Your task to perform on an android device: Show the shopping cart on walmart. Search for "dell xps" on walmart, select the first entry, and add it to the cart. Image 0: 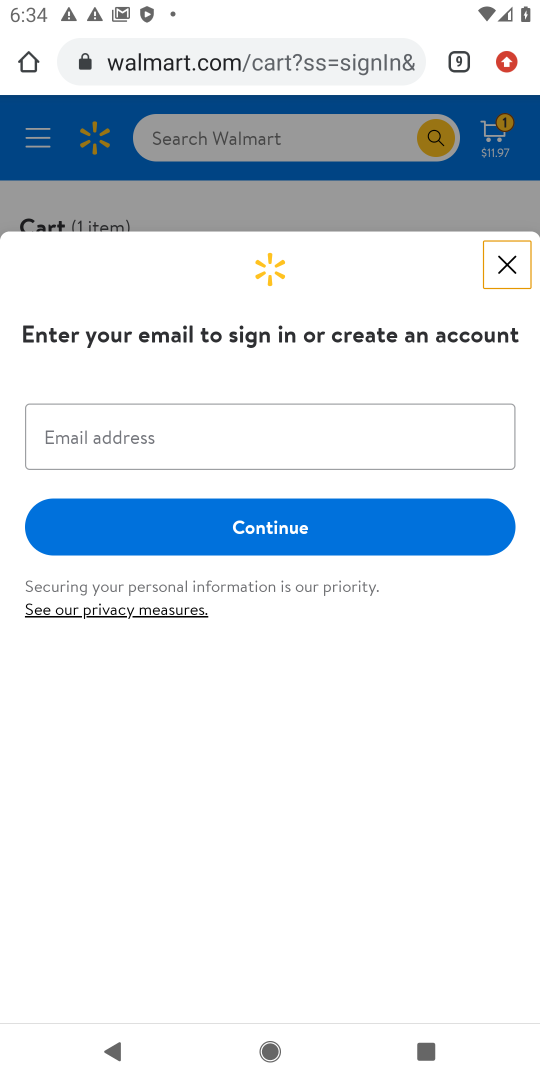
Step 0: press home button
Your task to perform on an android device: Show the shopping cart on walmart. Search for "dell xps" on walmart, select the first entry, and add it to the cart. Image 1: 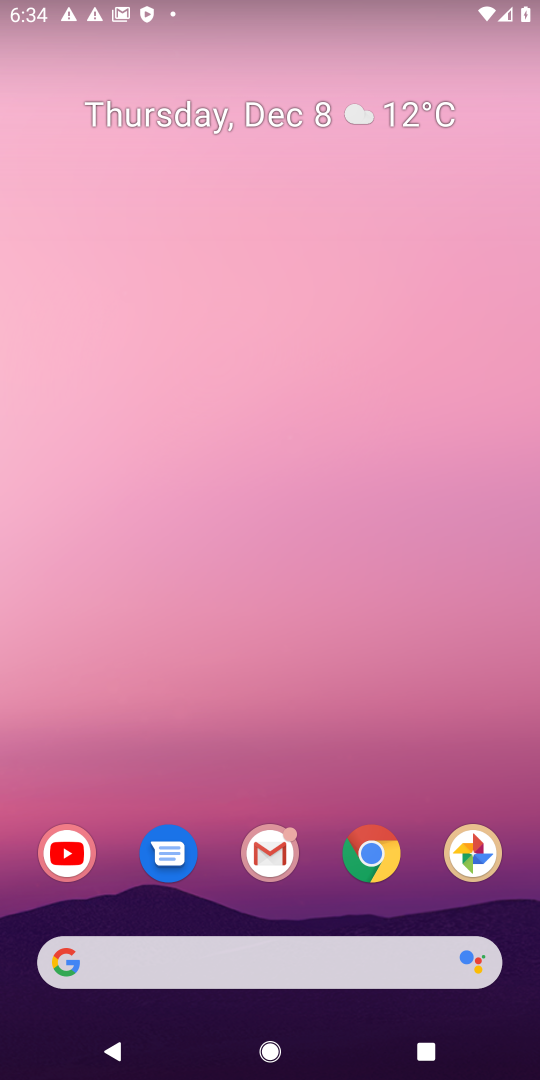
Step 1: click (217, 940)
Your task to perform on an android device: Show the shopping cart on walmart. Search for "dell xps" on walmart, select the first entry, and add it to the cart. Image 2: 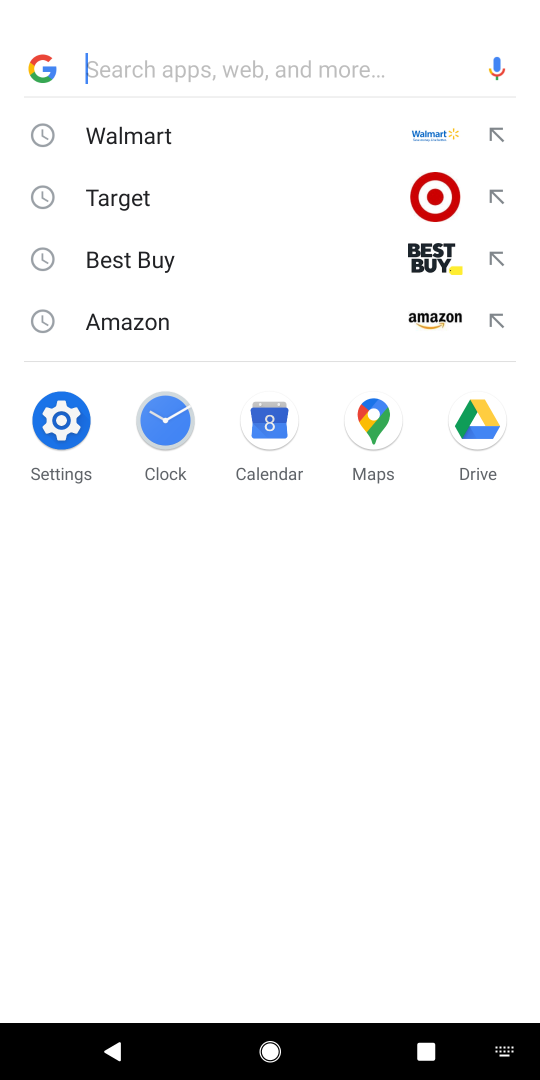
Step 2: click (100, 133)
Your task to perform on an android device: Show the shopping cart on walmart. Search for "dell xps" on walmart, select the first entry, and add it to the cart. Image 3: 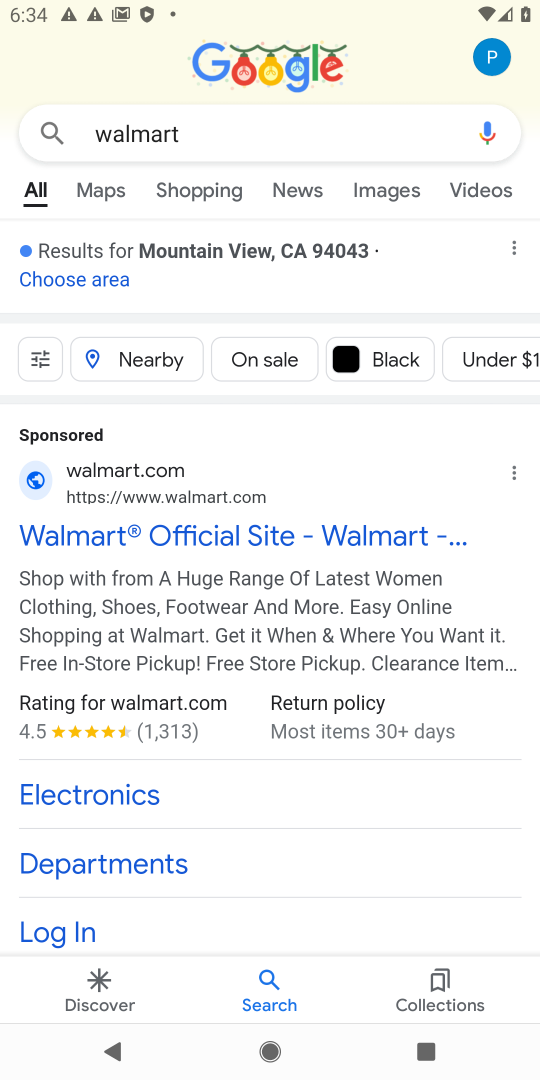
Step 3: click (155, 526)
Your task to perform on an android device: Show the shopping cart on walmart. Search for "dell xps" on walmart, select the first entry, and add it to the cart. Image 4: 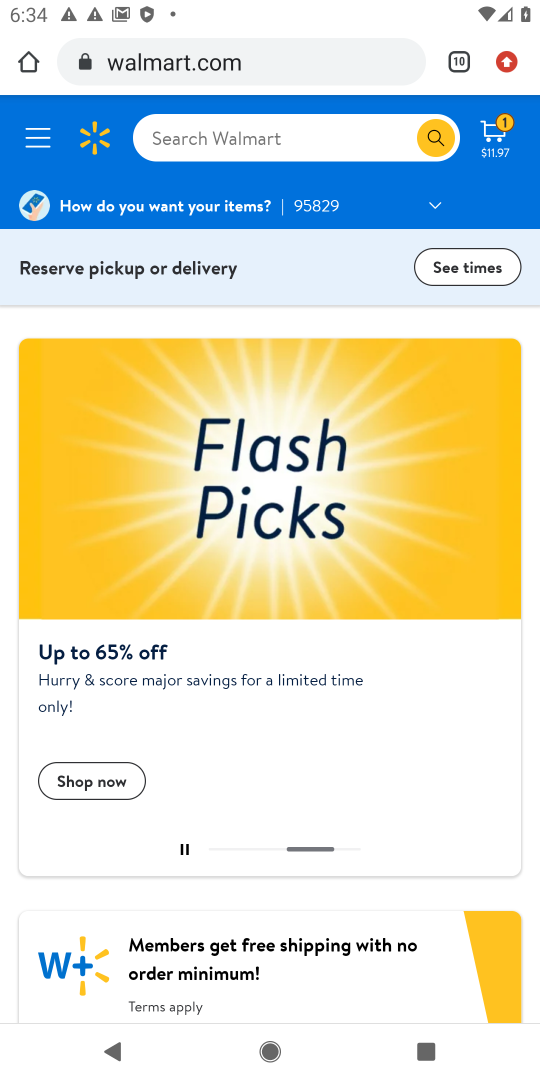
Step 4: click (300, 140)
Your task to perform on an android device: Show the shopping cart on walmart. Search for "dell xps" on walmart, select the first entry, and add it to the cart. Image 5: 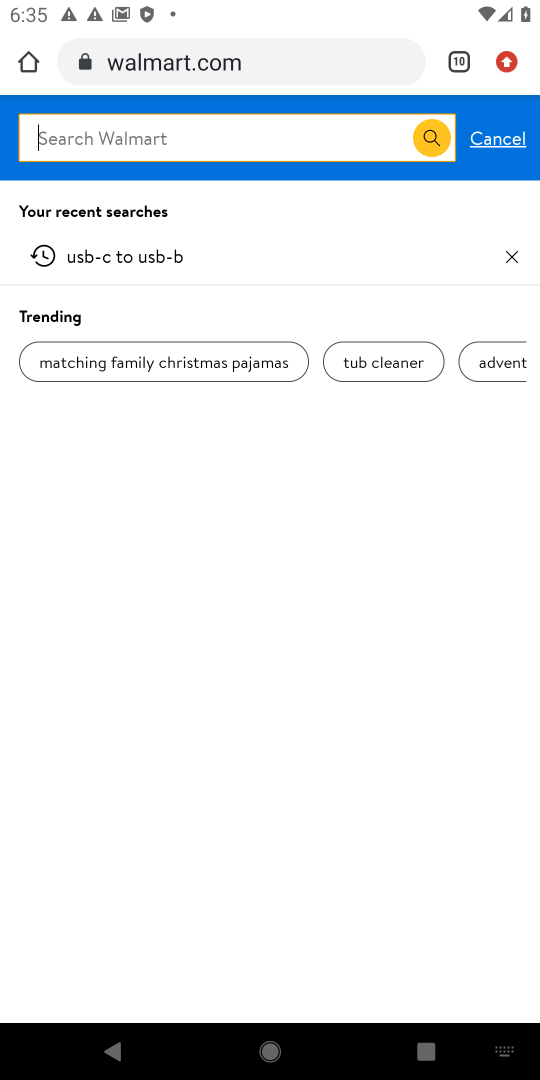
Step 5: type "dell xps"
Your task to perform on an android device: Show the shopping cart on walmart. Search for "dell xps" on walmart, select the first entry, and add it to the cart. Image 6: 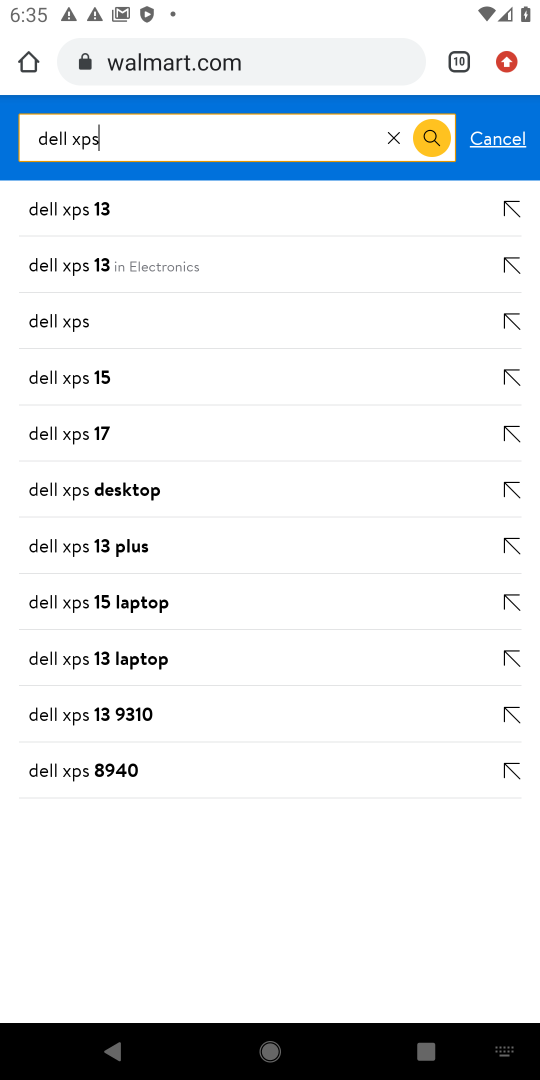
Step 6: click (57, 320)
Your task to perform on an android device: Show the shopping cart on walmart. Search for "dell xps" on walmart, select the first entry, and add it to the cart. Image 7: 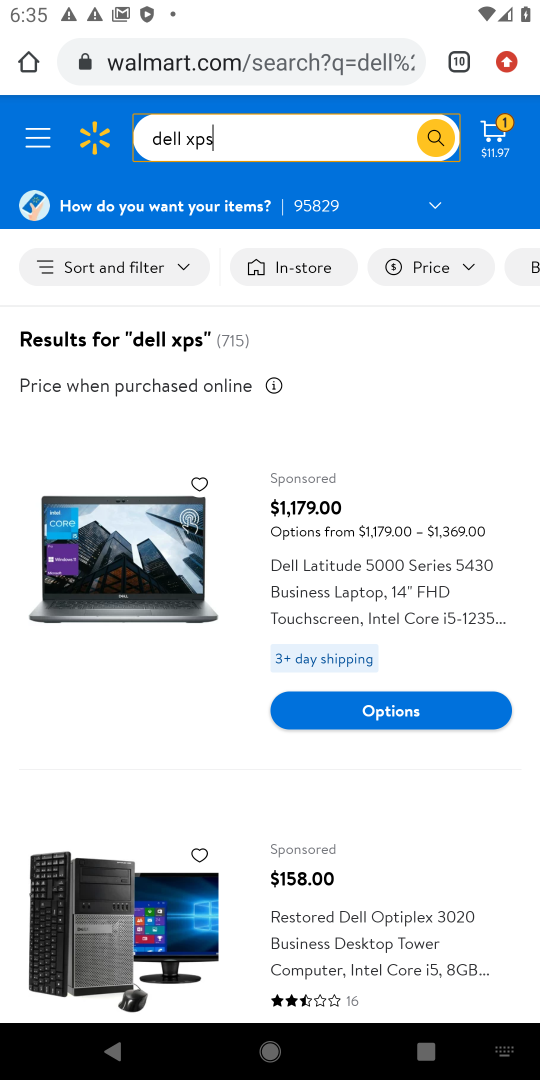
Step 7: click (373, 711)
Your task to perform on an android device: Show the shopping cart on walmart. Search for "dell xps" on walmart, select the first entry, and add it to the cart. Image 8: 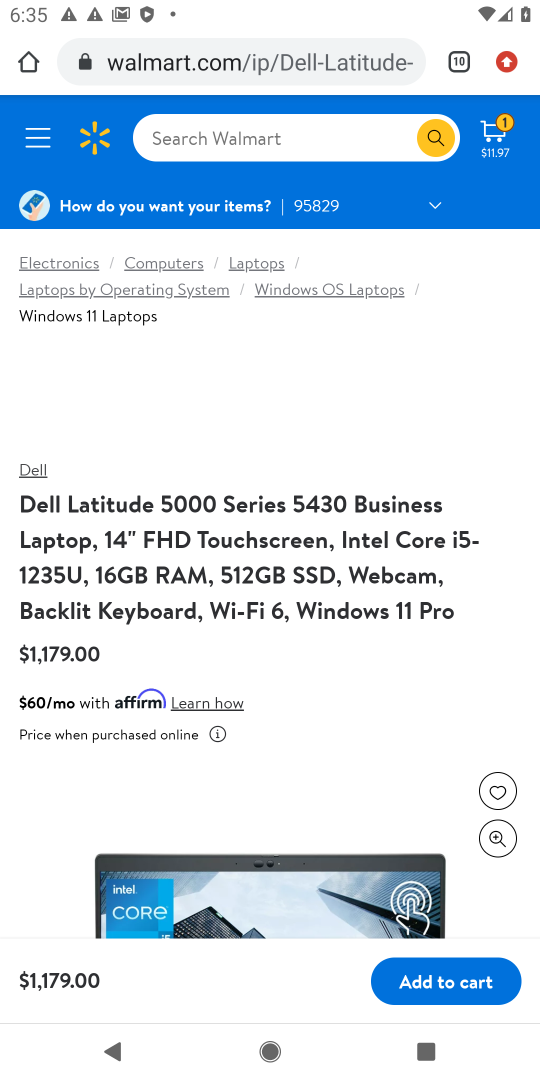
Step 8: click (444, 983)
Your task to perform on an android device: Show the shopping cart on walmart. Search for "dell xps" on walmart, select the first entry, and add it to the cart. Image 9: 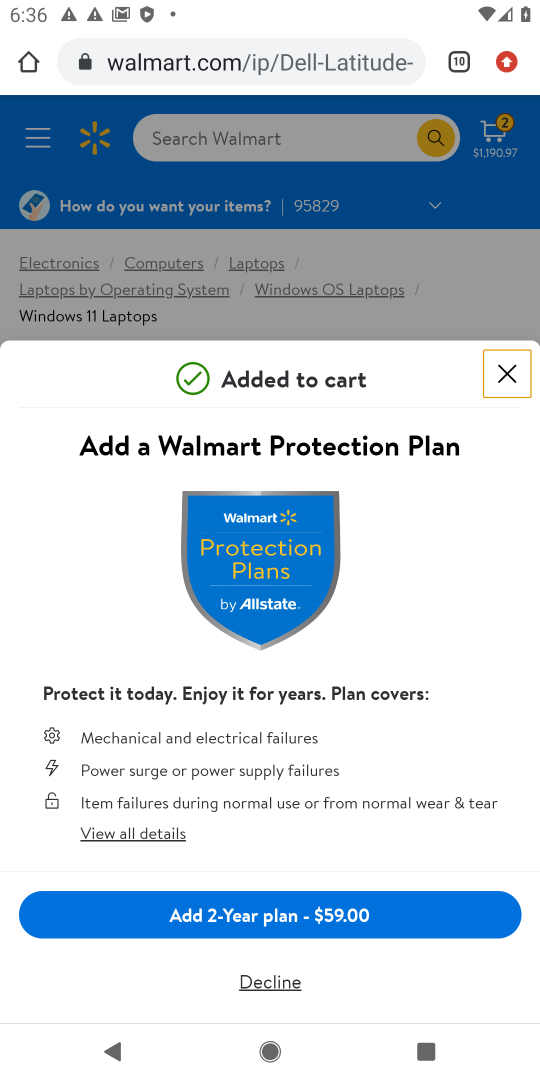
Step 9: click (507, 374)
Your task to perform on an android device: Show the shopping cart on walmart. Search for "dell xps" on walmart, select the first entry, and add it to the cart. Image 10: 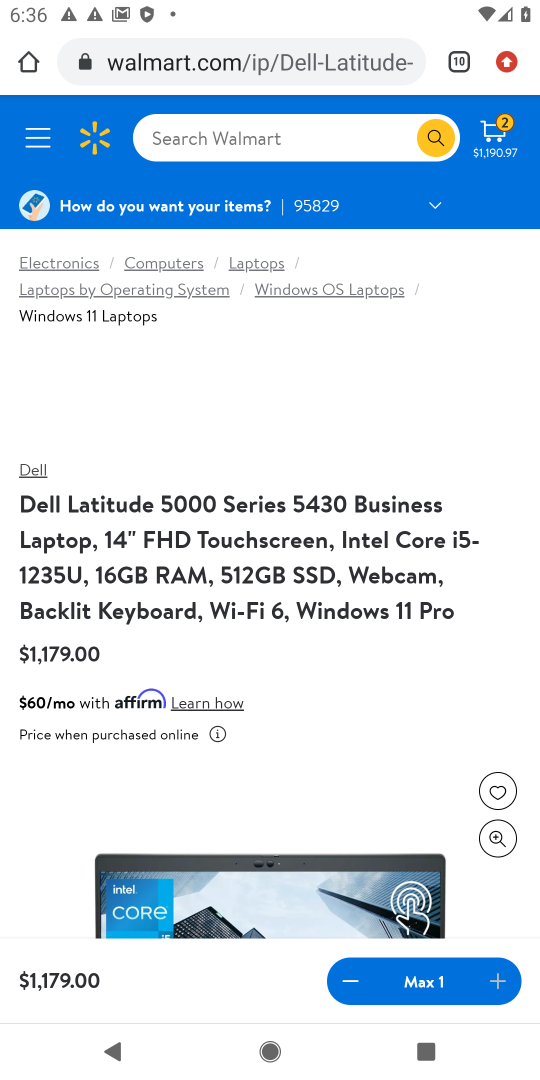
Step 10: task complete